Your task to perform on an android device: stop showing notifications on the lock screen Image 0: 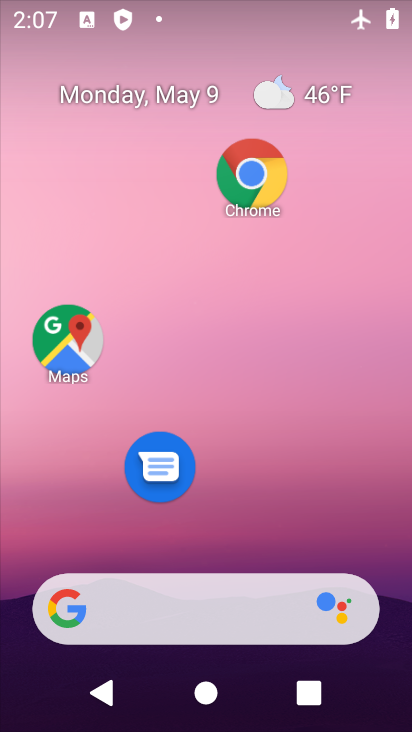
Step 0: drag from (229, 533) to (199, 27)
Your task to perform on an android device: stop showing notifications on the lock screen Image 1: 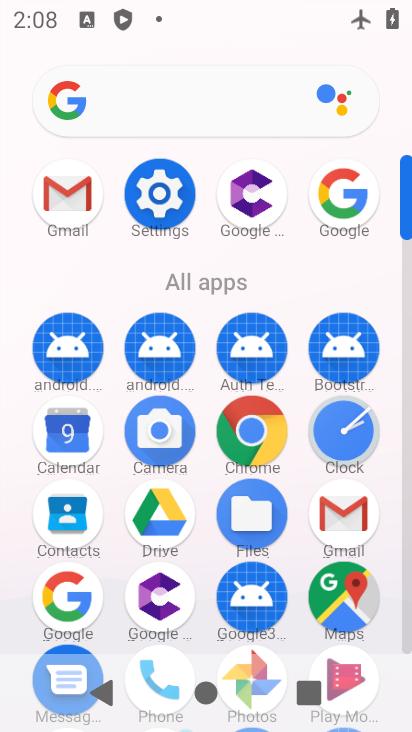
Step 1: click (181, 200)
Your task to perform on an android device: stop showing notifications on the lock screen Image 2: 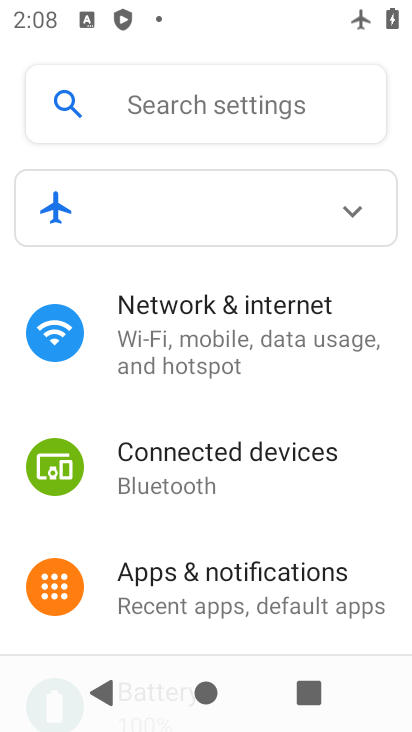
Step 2: click (219, 220)
Your task to perform on an android device: stop showing notifications on the lock screen Image 3: 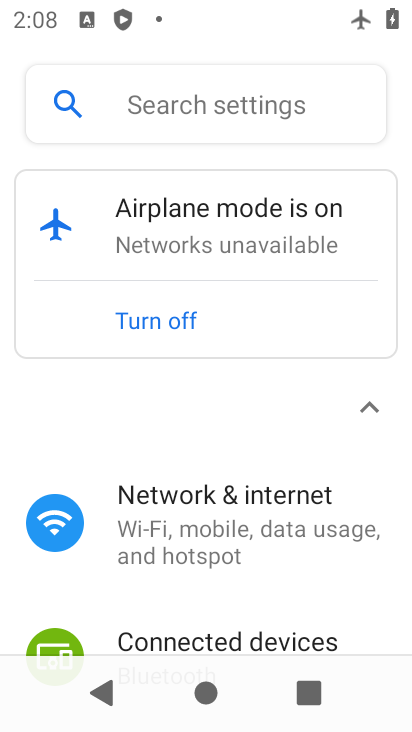
Step 3: drag from (134, 557) to (185, 57)
Your task to perform on an android device: stop showing notifications on the lock screen Image 4: 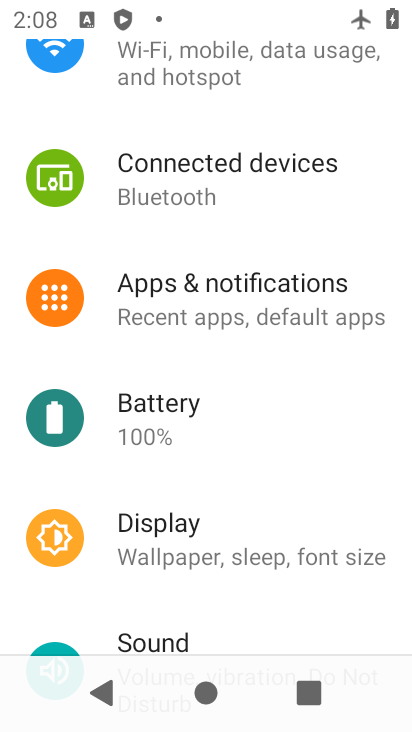
Step 4: click (243, 285)
Your task to perform on an android device: stop showing notifications on the lock screen Image 5: 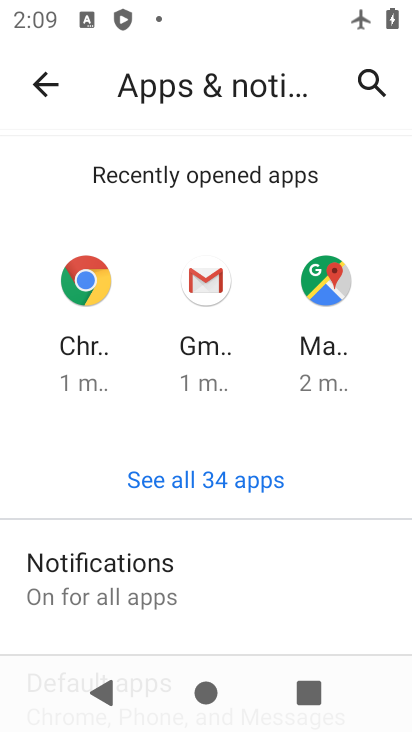
Step 5: click (158, 583)
Your task to perform on an android device: stop showing notifications on the lock screen Image 6: 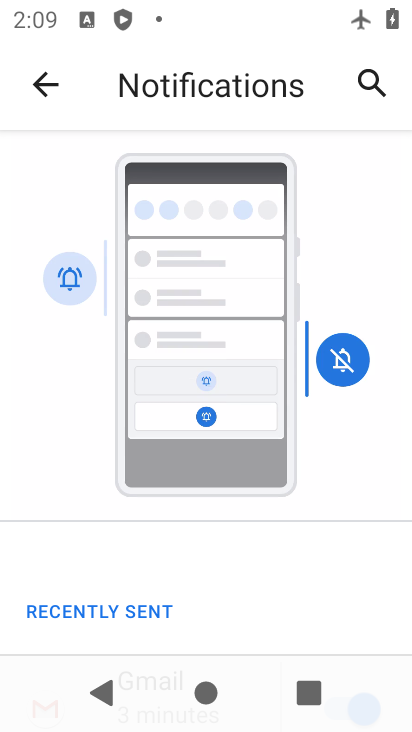
Step 6: drag from (301, 580) to (369, 303)
Your task to perform on an android device: stop showing notifications on the lock screen Image 7: 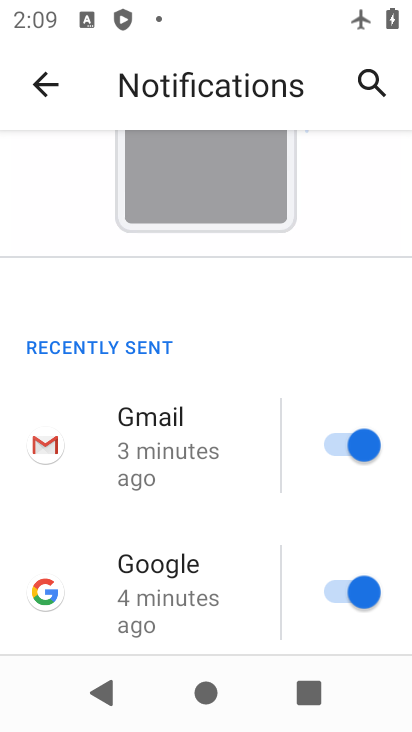
Step 7: drag from (180, 585) to (180, 358)
Your task to perform on an android device: stop showing notifications on the lock screen Image 8: 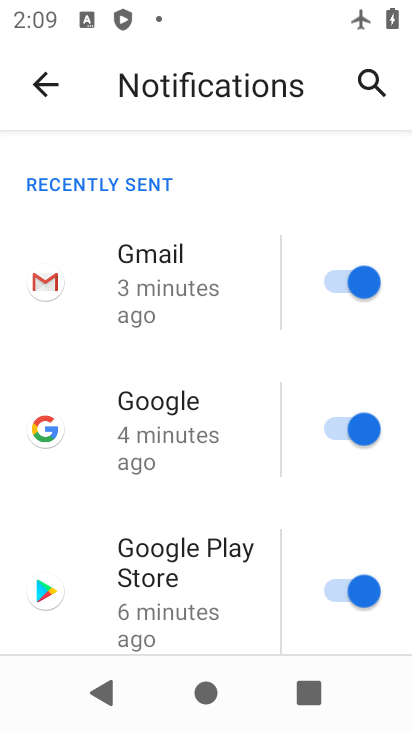
Step 8: drag from (187, 563) to (209, 156)
Your task to perform on an android device: stop showing notifications on the lock screen Image 9: 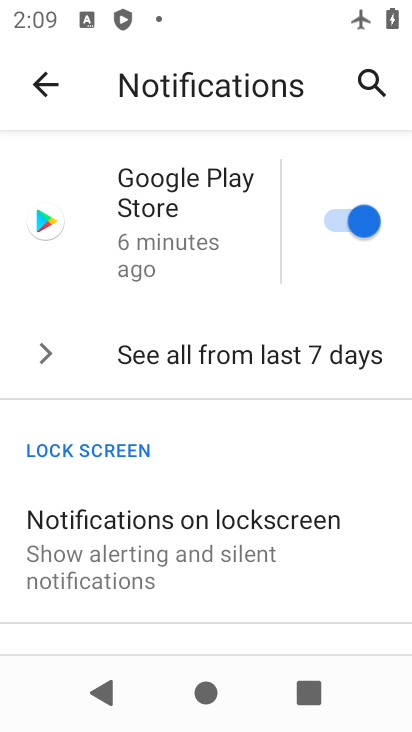
Step 9: click (193, 534)
Your task to perform on an android device: stop showing notifications on the lock screen Image 10: 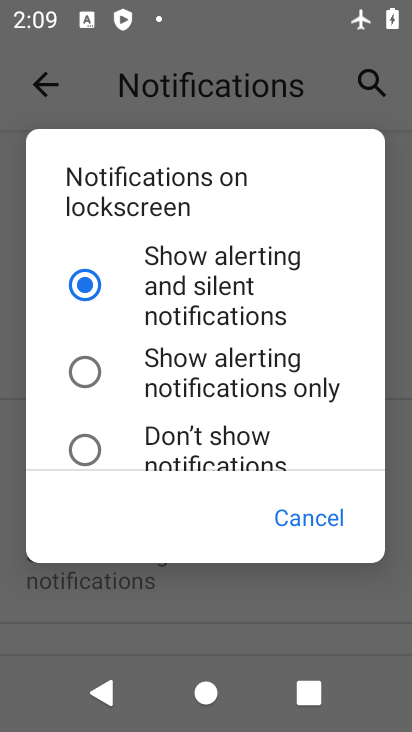
Step 10: click (145, 438)
Your task to perform on an android device: stop showing notifications on the lock screen Image 11: 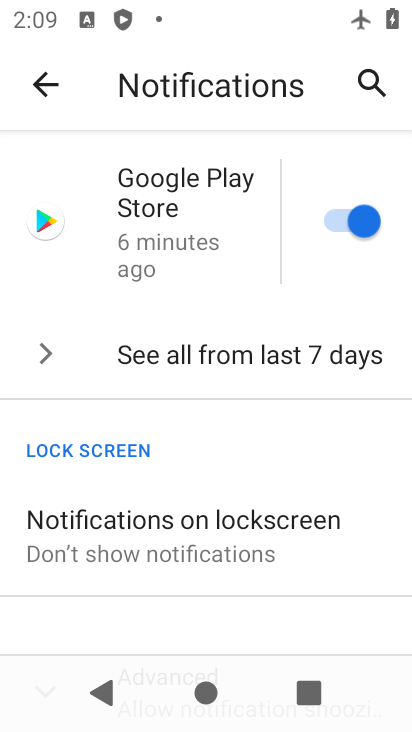
Step 11: task complete